Your task to perform on an android device: Do I have any events this weekend? Image 0: 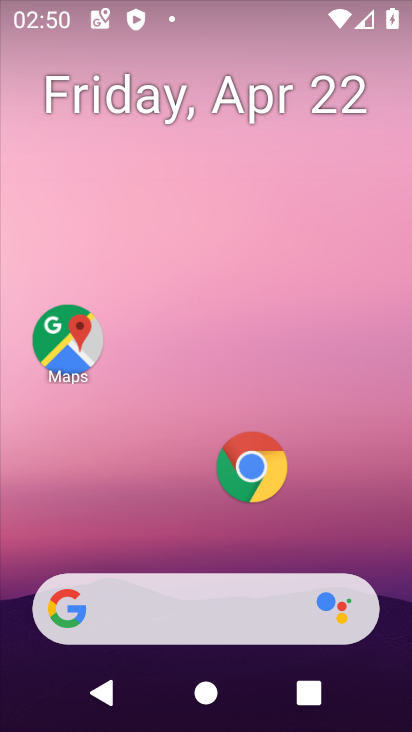
Step 0: click (207, 87)
Your task to perform on an android device: Do I have any events this weekend? Image 1: 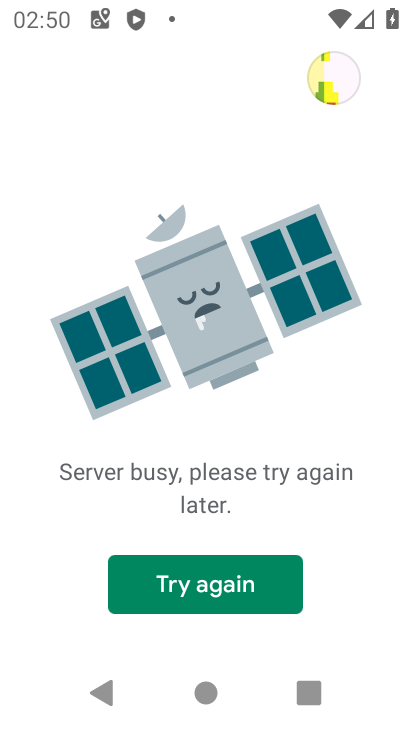
Step 1: press home button
Your task to perform on an android device: Do I have any events this weekend? Image 2: 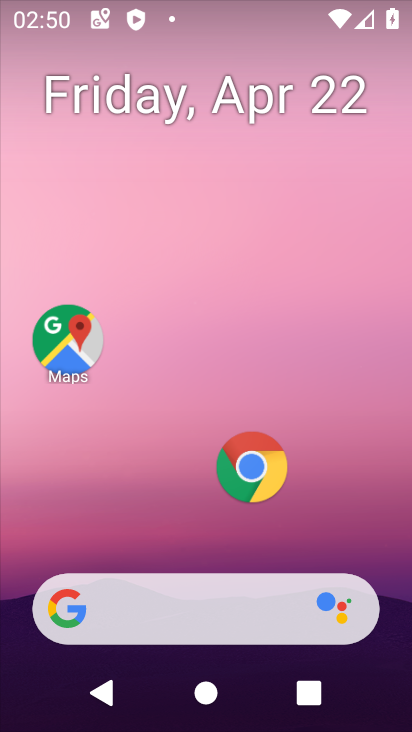
Step 2: drag from (192, 542) to (204, 164)
Your task to perform on an android device: Do I have any events this weekend? Image 3: 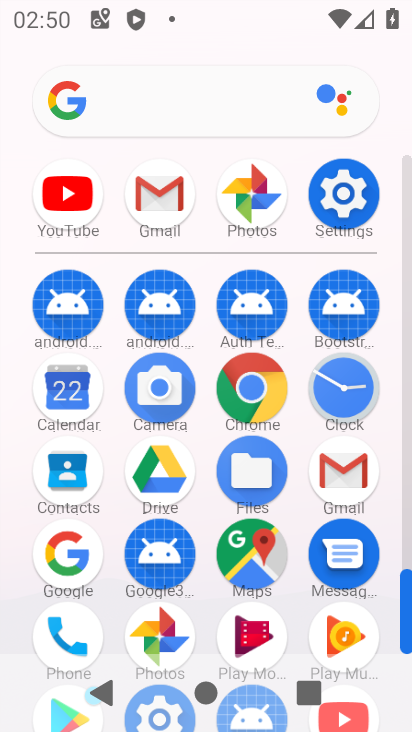
Step 3: click (69, 408)
Your task to perform on an android device: Do I have any events this weekend? Image 4: 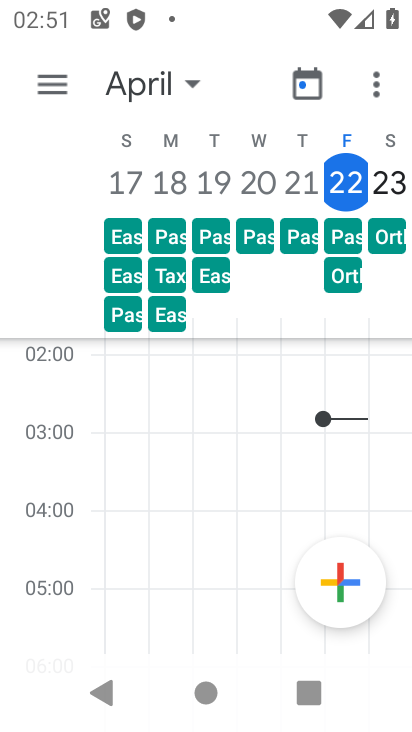
Step 4: click (180, 88)
Your task to perform on an android device: Do I have any events this weekend? Image 5: 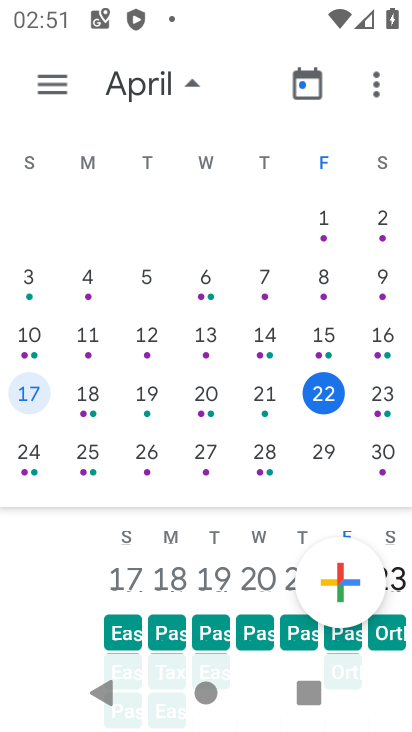
Step 5: click (377, 400)
Your task to perform on an android device: Do I have any events this weekend? Image 6: 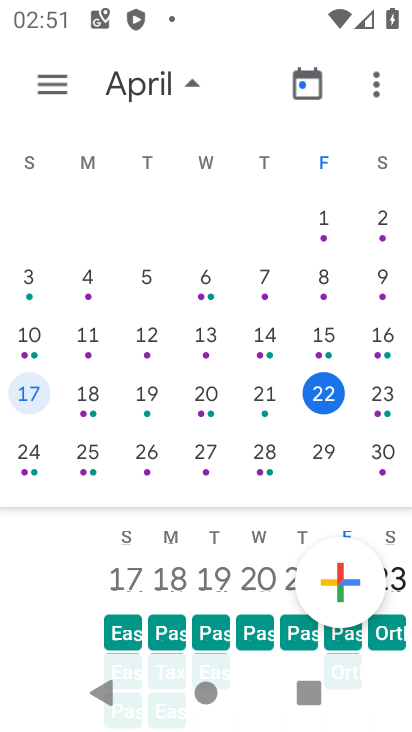
Step 6: click (39, 457)
Your task to perform on an android device: Do I have any events this weekend? Image 7: 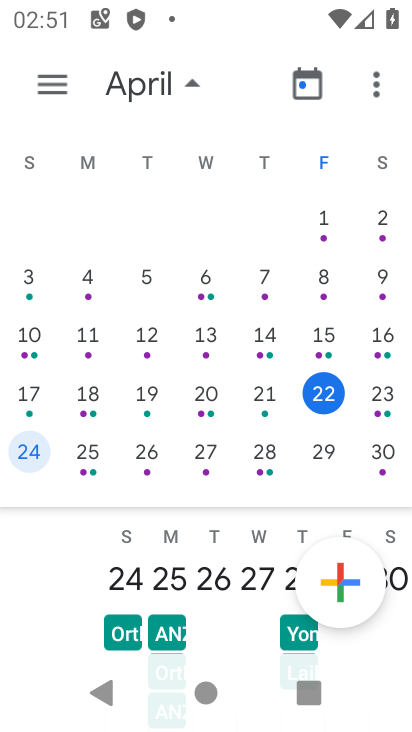
Step 7: click (390, 399)
Your task to perform on an android device: Do I have any events this weekend? Image 8: 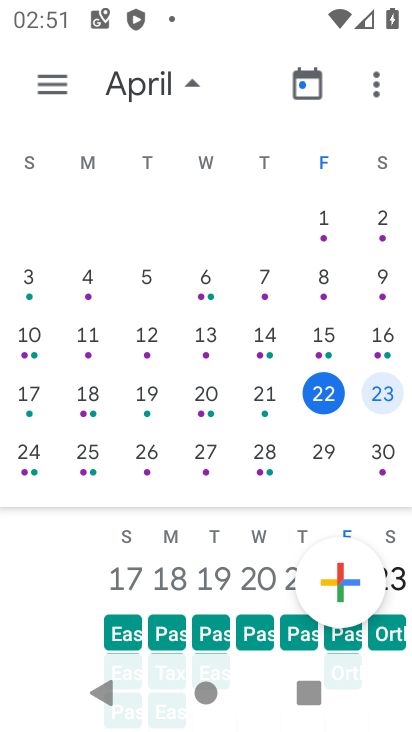
Step 8: task complete